Your task to perform on an android device: empty trash in google photos Image 0: 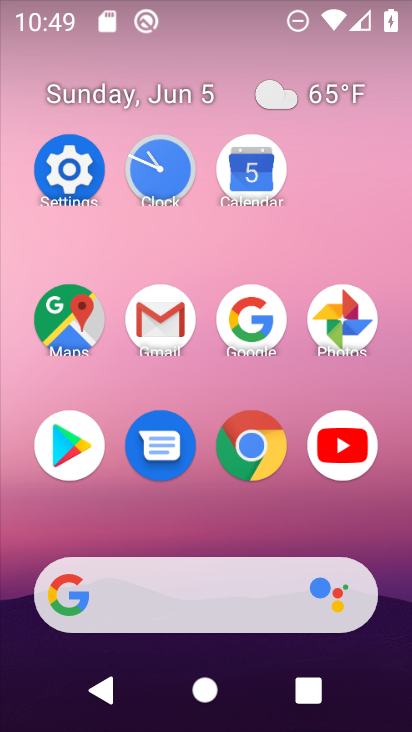
Step 0: click (342, 330)
Your task to perform on an android device: empty trash in google photos Image 1: 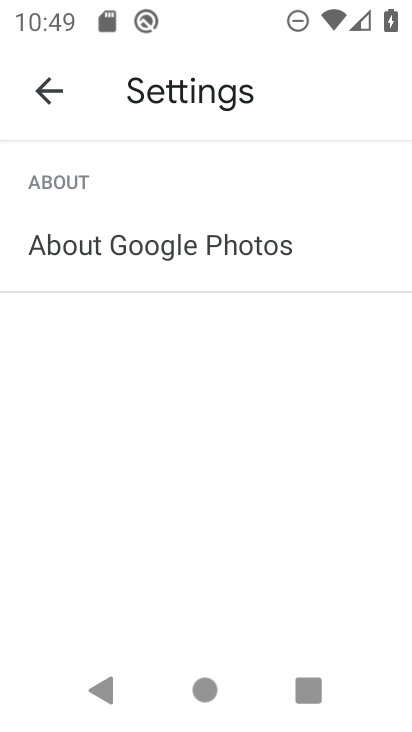
Step 1: click (62, 80)
Your task to perform on an android device: empty trash in google photos Image 2: 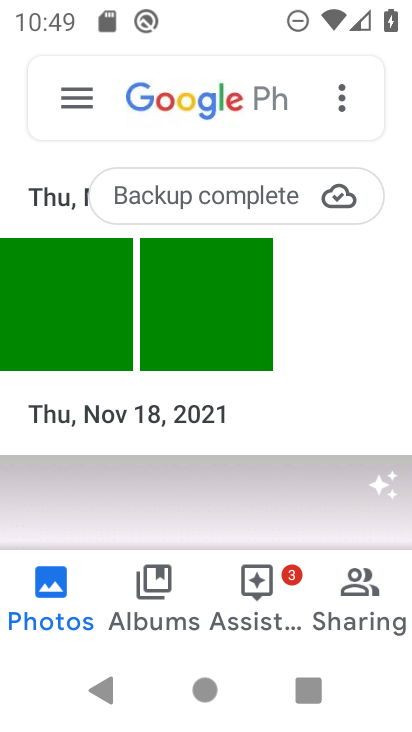
Step 2: click (85, 117)
Your task to perform on an android device: empty trash in google photos Image 3: 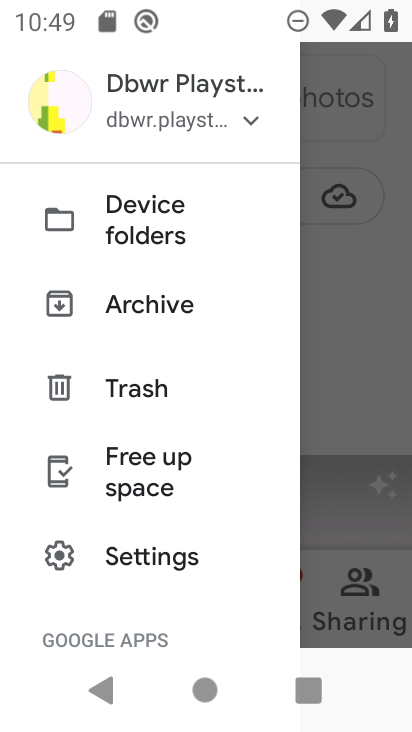
Step 3: click (181, 389)
Your task to perform on an android device: empty trash in google photos Image 4: 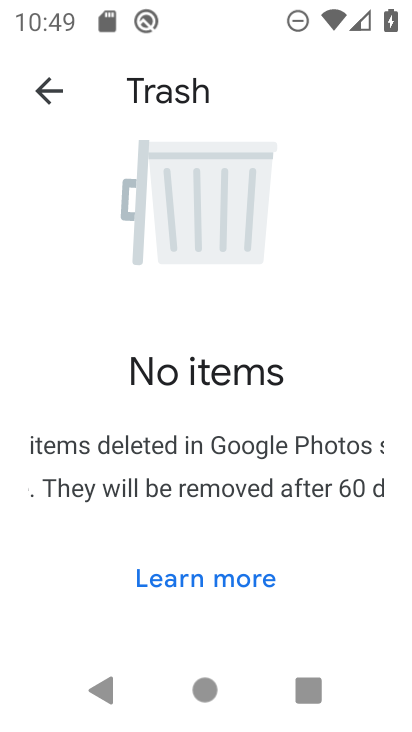
Step 4: task complete